Your task to perform on an android device: Open the calendar and show me this week's events? Image 0: 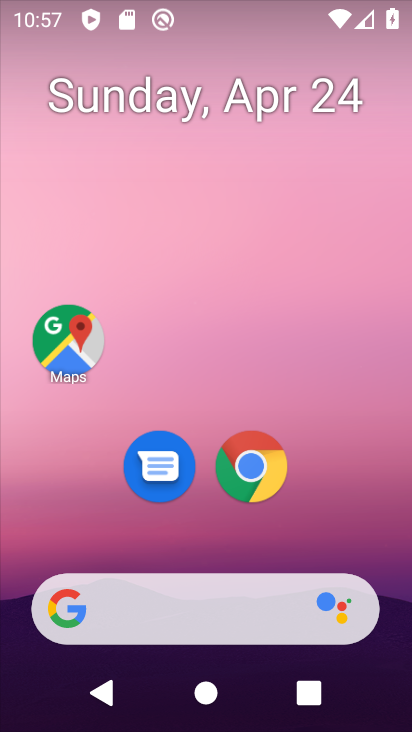
Step 0: drag from (278, 418) to (259, 72)
Your task to perform on an android device: Open the calendar and show me this week's events? Image 1: 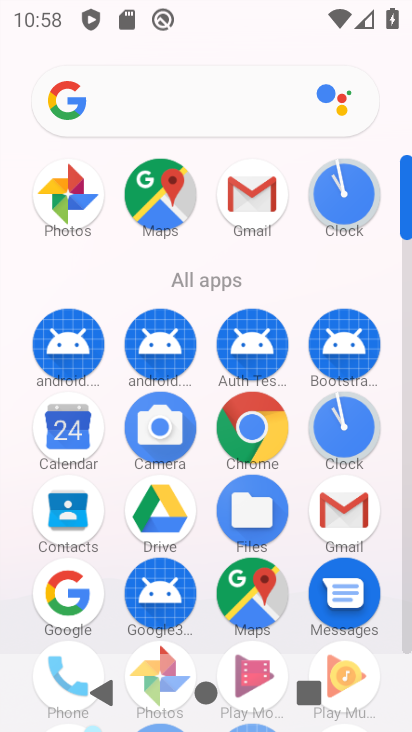
Step 1: click (74, 423)
Your task to perform on an android device: Open the calendar and show me this week's events? Image 2: 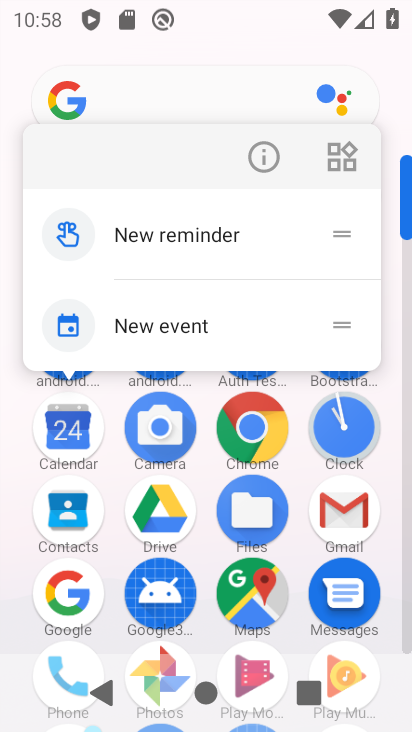
Step 2: click (74, 423)
Your task to perform on an android device: Open the calendar and show me this week's events? Image 3: 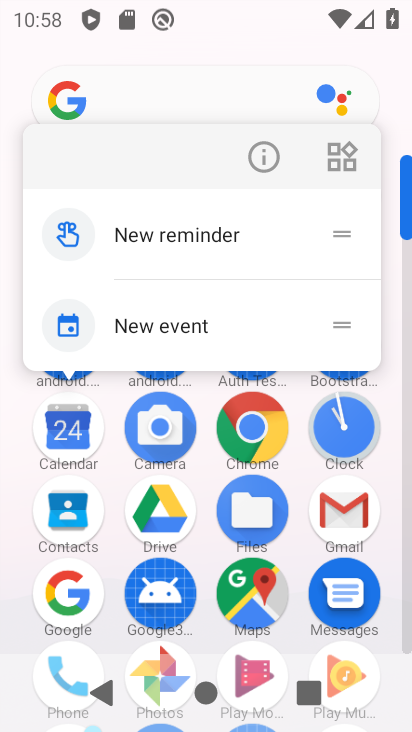
Step 3: click (74, 423)
Your task to perform on an android device: Open the calendar and show me this week's events? Image 4: 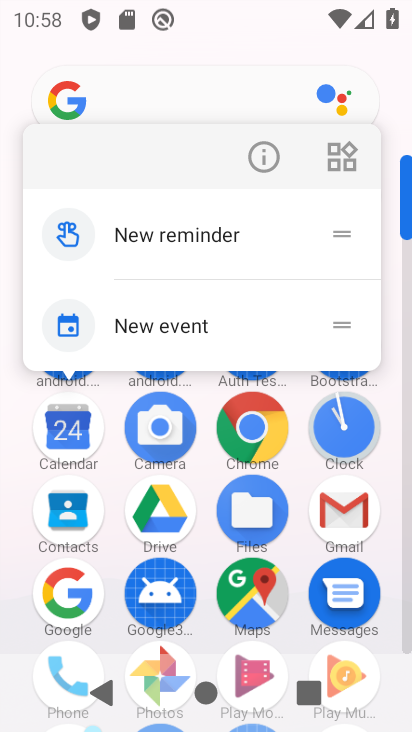
Step 4: click (81, 440)
Your task to perform on an android device: Open the calendar and show me this week's events? Image 5: 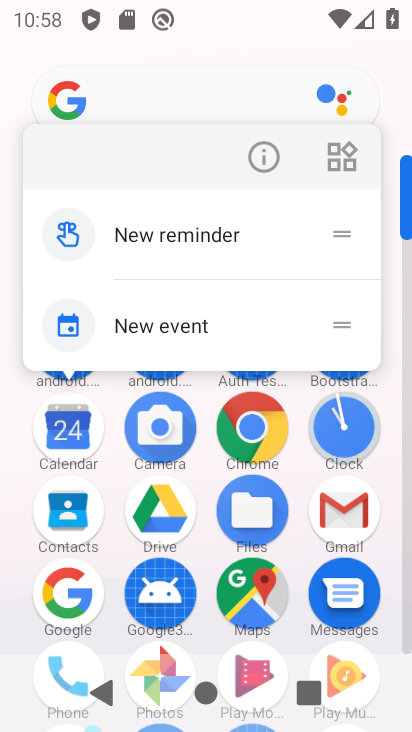
Step 5: click (59, 441)
Your task to perform on an android device: Open the calendar and show me this week's events? Image 6: 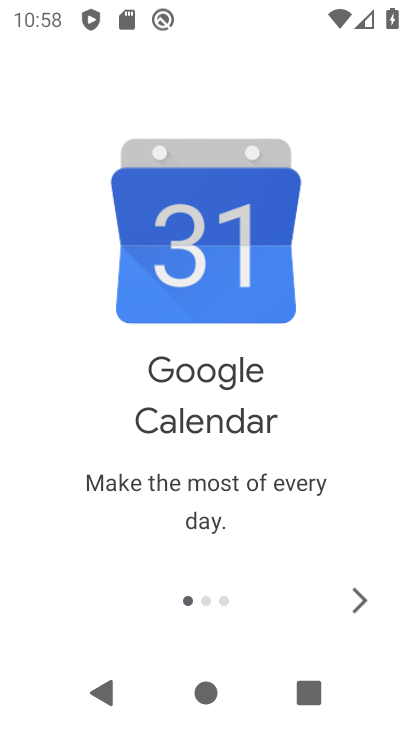
Step 6: click (363, 609)
Your task to perform on an android device: Open the calendar and show me this week's events? Image 7: 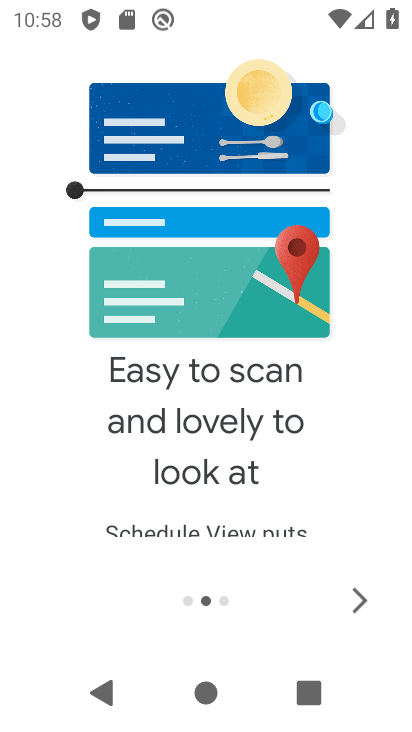
Step 7: click (363, 609)
Your task to perform on an android device: Open the calendar and show me this week's events? Image 8: 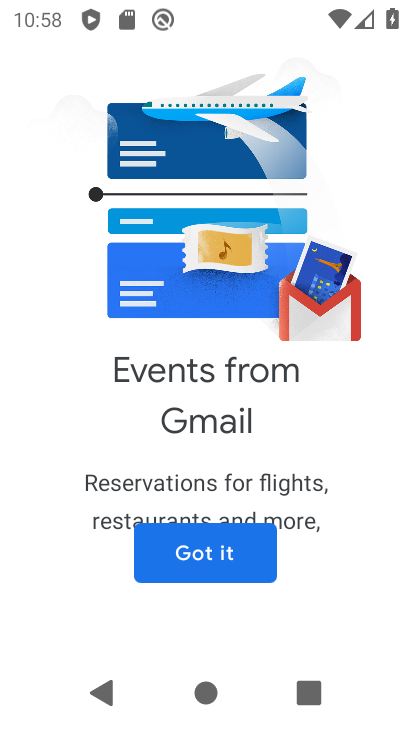
Step 8: click (258, 568)
Your task to perform on an android device: Open the calendar and show me this week's events? Image 9: 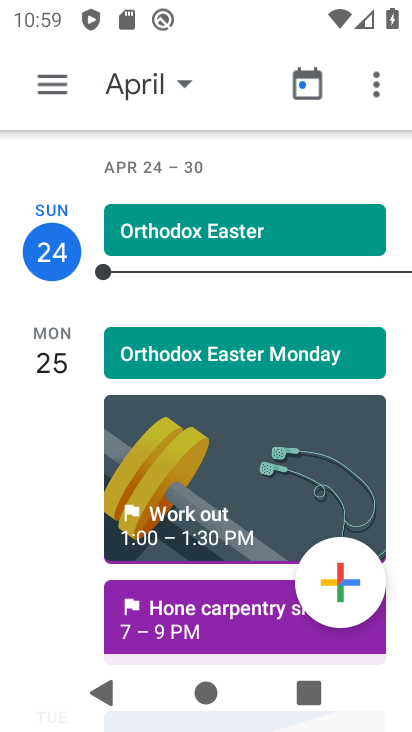
Step 9: click (61, 79)
Your task to perform on an android device: Open the calendar and show me this week's events? Image 10: 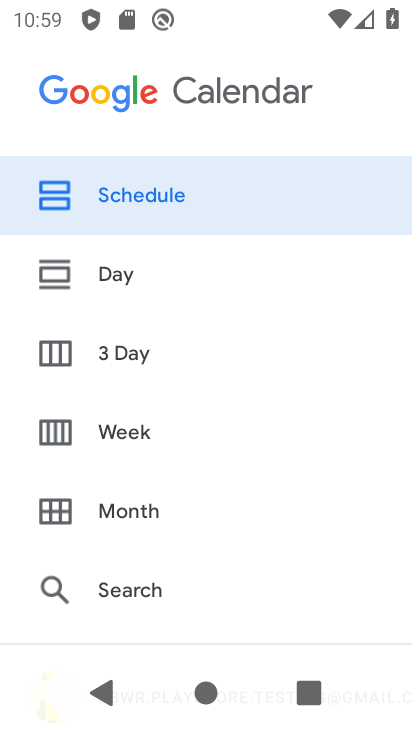
Step 10: click (176, 445)
Your task to perform on an android device: Open the calendar and show me this week's events? Image 11: 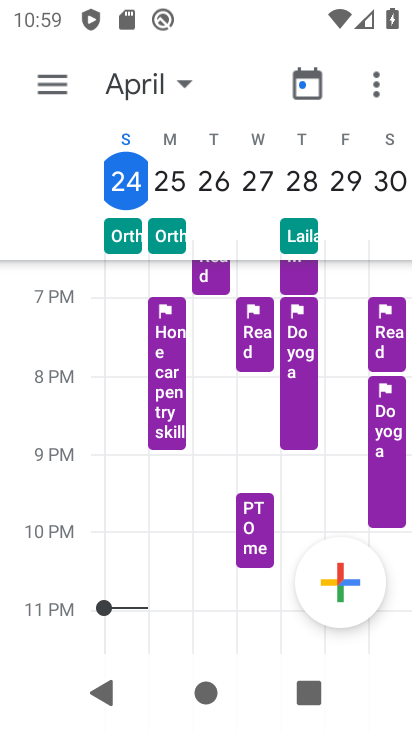
Step 11: task complete